Your task to perform on an android device: open app "PlayWell" (install if not already installed) and enter user name: "metric@gmail.com" and password: "bumblebee" Image 0: 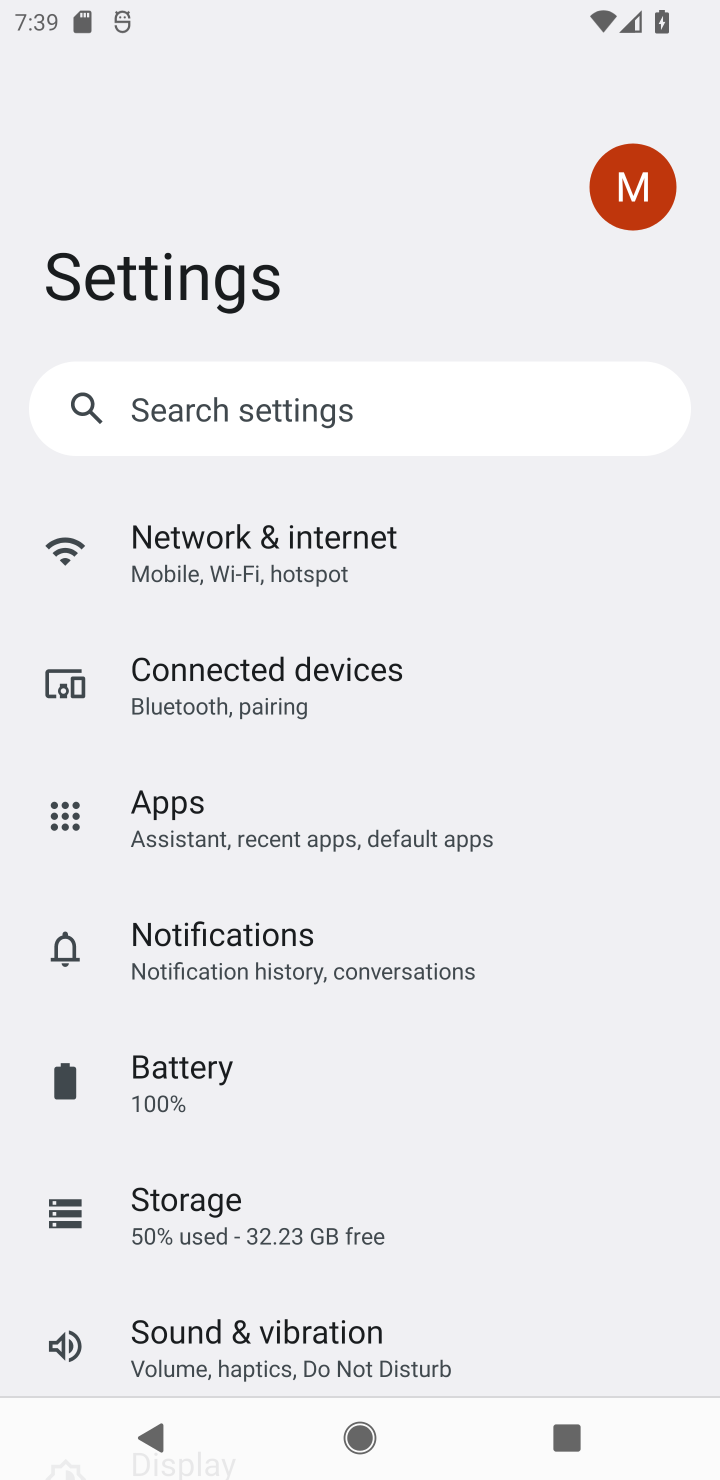
Step 0: press home button
Your task to perform on an android device: open app "PlayWell" (install if not already installed) and enter user name: "metric@gmail.com" and password: "bumblebee" Image 1: 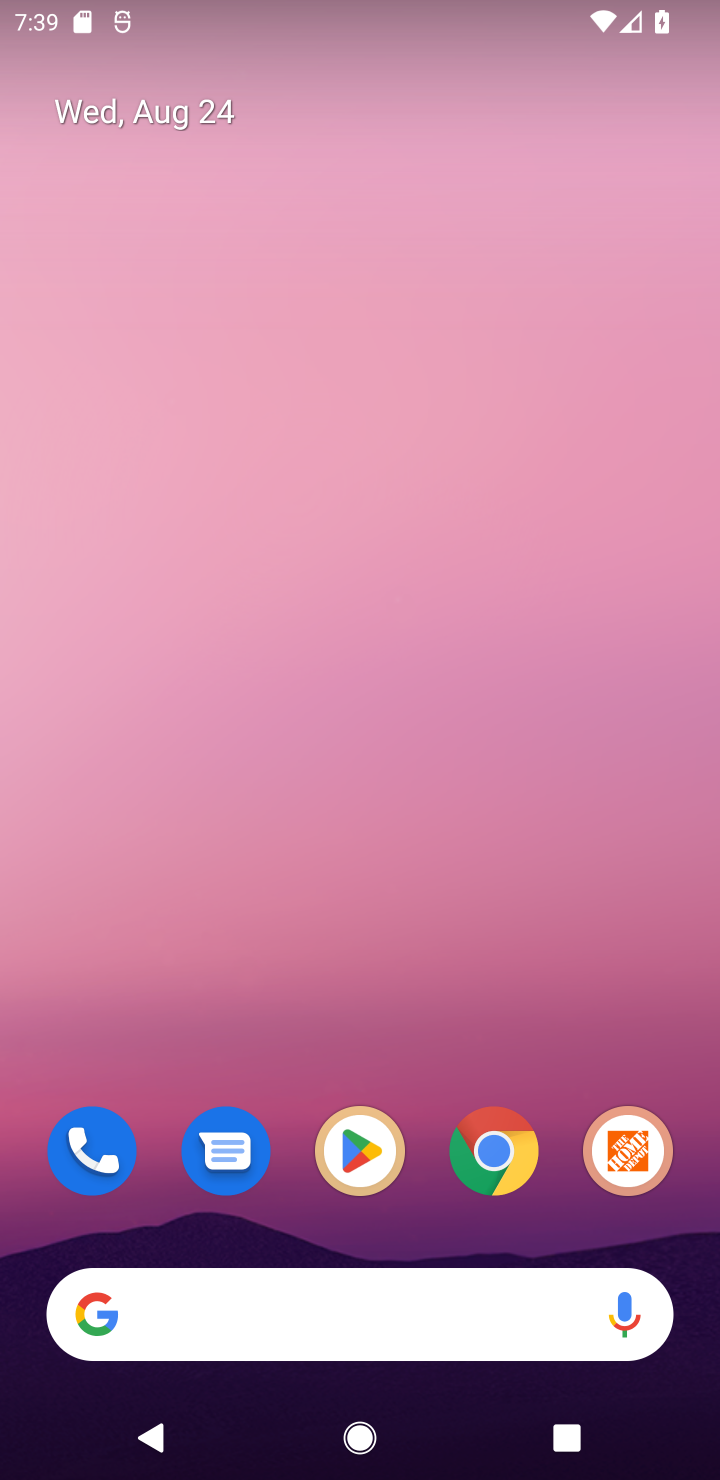
Step 1: click (365, 1144)
Your task to perform on an android device: open app "PlayWell" (install if not already installed) and enter user name: "metric@gmail.com" and password: "bumblebee" Image 2: 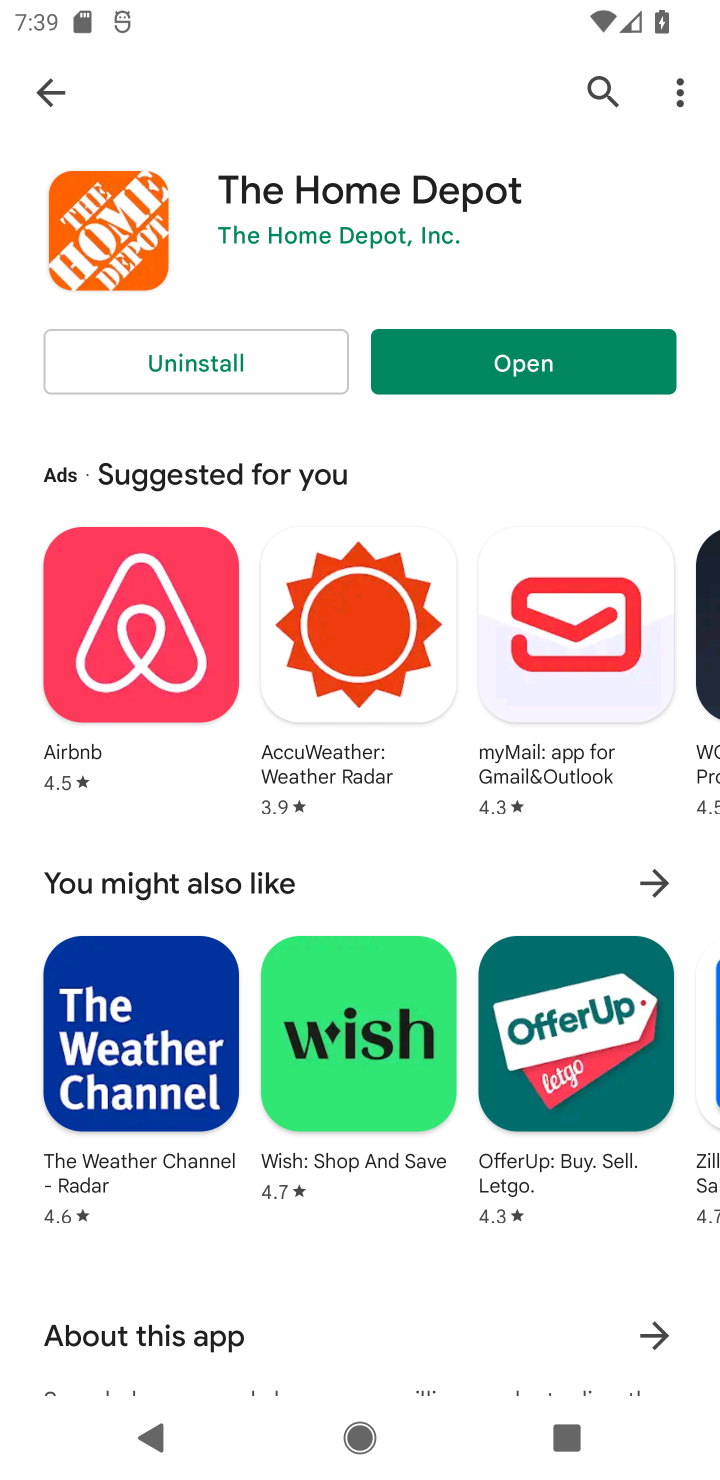
Step 2: click (588, 91)
Your task to perform on an android device: open app "PlayWell" (install if not already installed) and enter user name: "metric@gmail.com" and password: "bumblebee" Image 3: 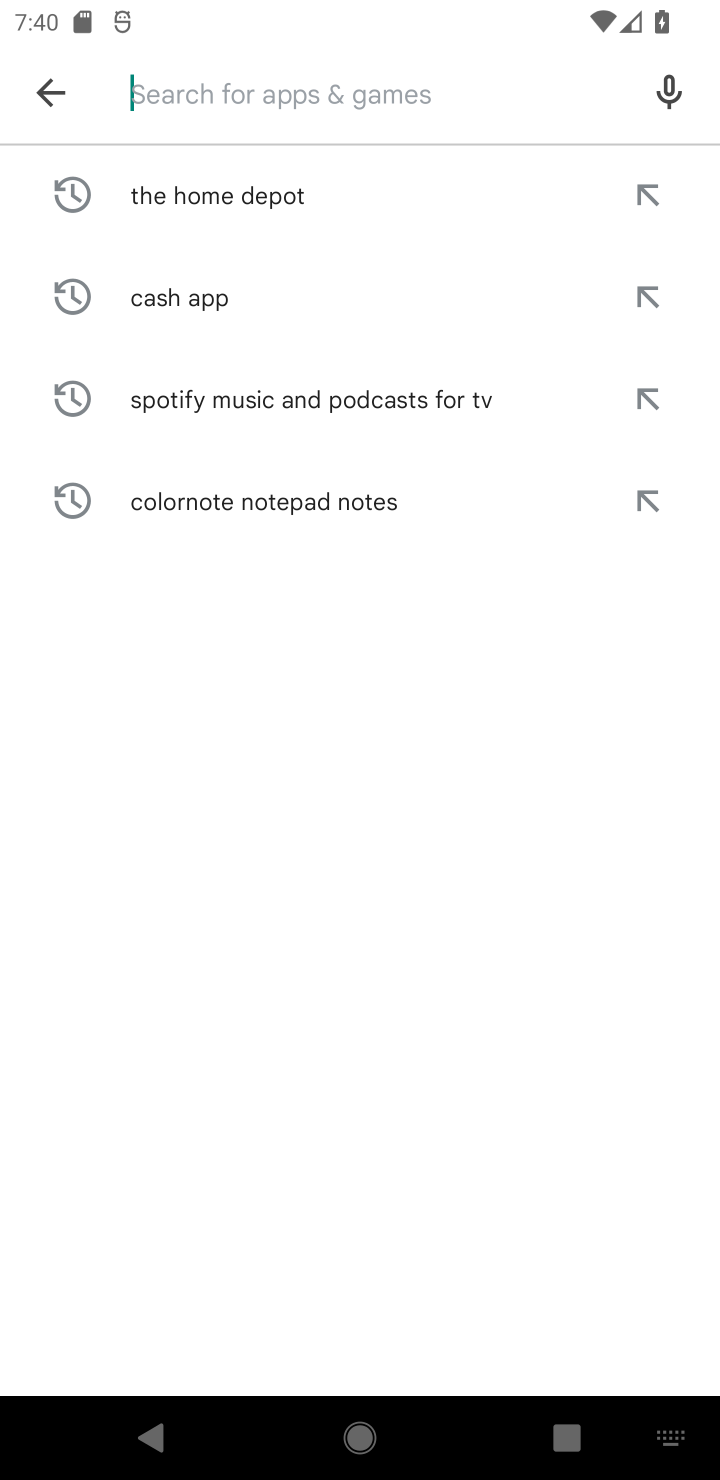
Step 3: type "PlayWel"
Your task to perform on an android device: open app "PlayWell" (install if not already installed) and enter user name: "metric@gmail.com" and password: "bumblebee" Image 4: 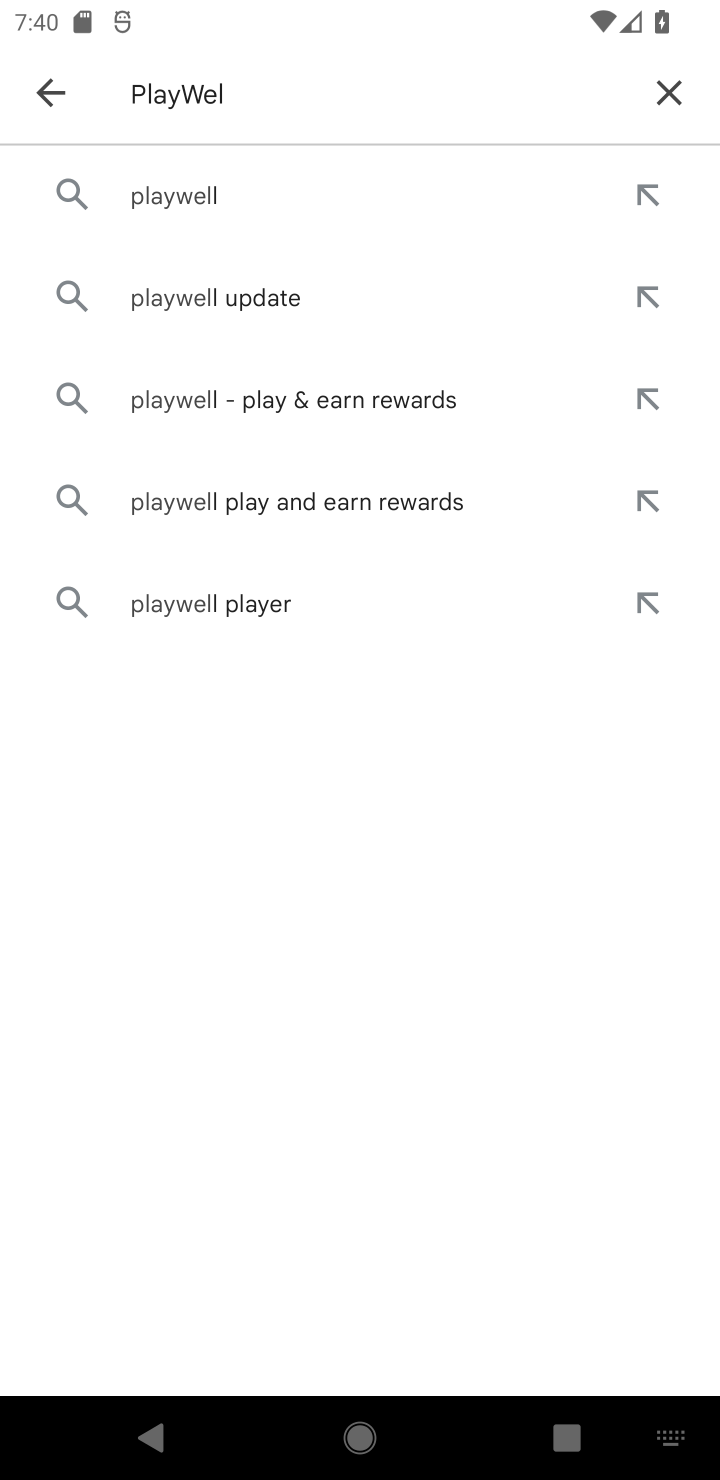
Step 4: click (198, 198)
Your task to perform on an android device: open app "PlayWell" (install if not already installed) and enter user name: "metric@gmail.com" and password: "bumblebee" Image 5: 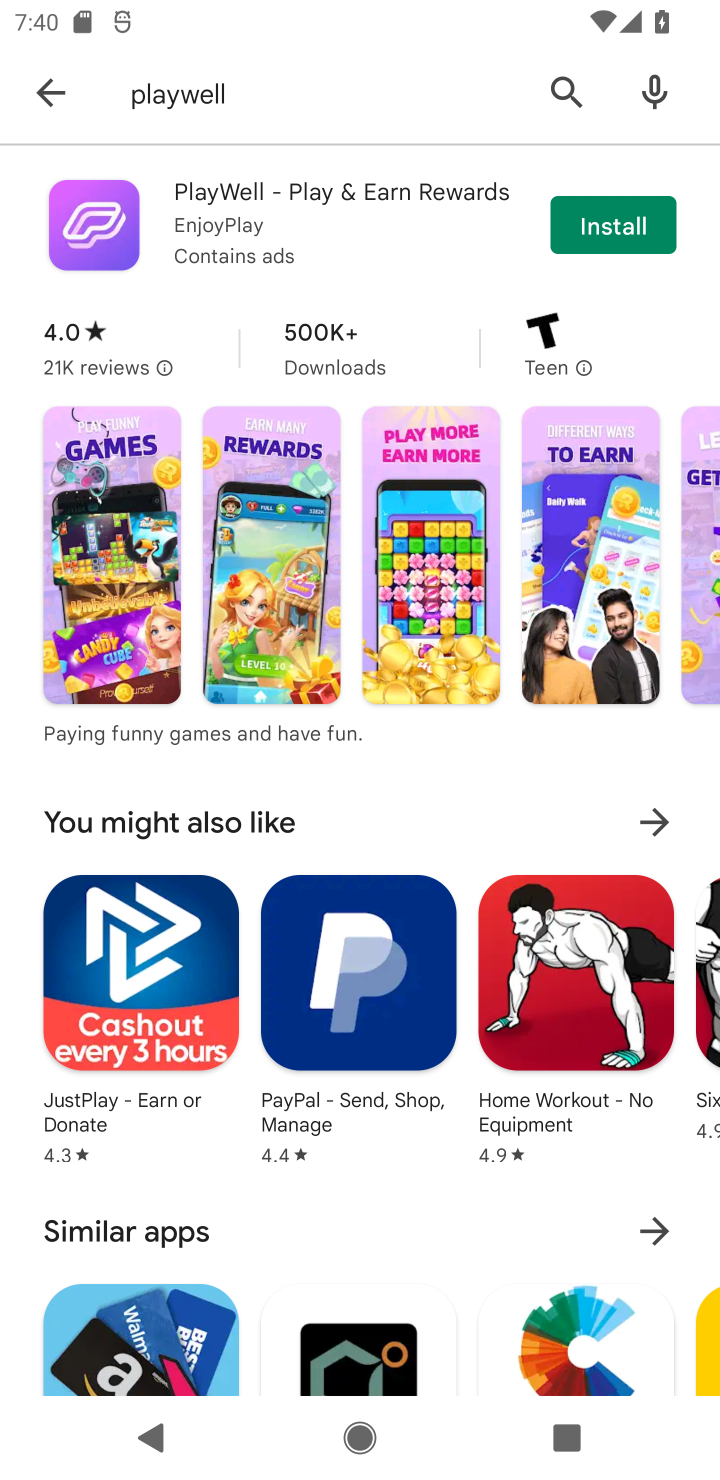
Step 5: click (234, 183)
Your task to perform on an android device: open app "PlayWell" (install if not already installed) and enter user name: "metric@gmail.com" and password: "bumblebee" Image 6: 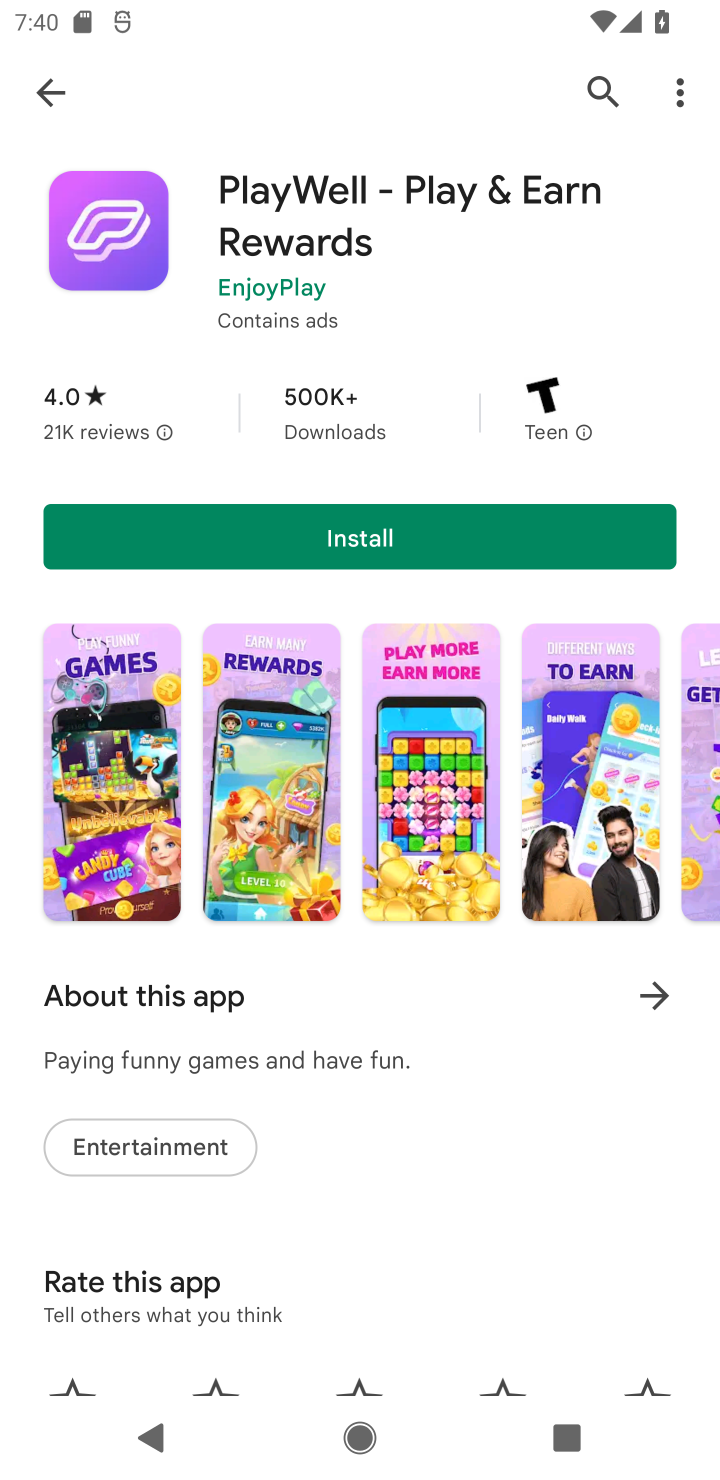
Step 6: click (354, 529)
Your task to perform on an android device: open app "PlayWell" (install if not already installed) and enter user name: "metric@gmail.com" and password: "bumblebee" Image 7: 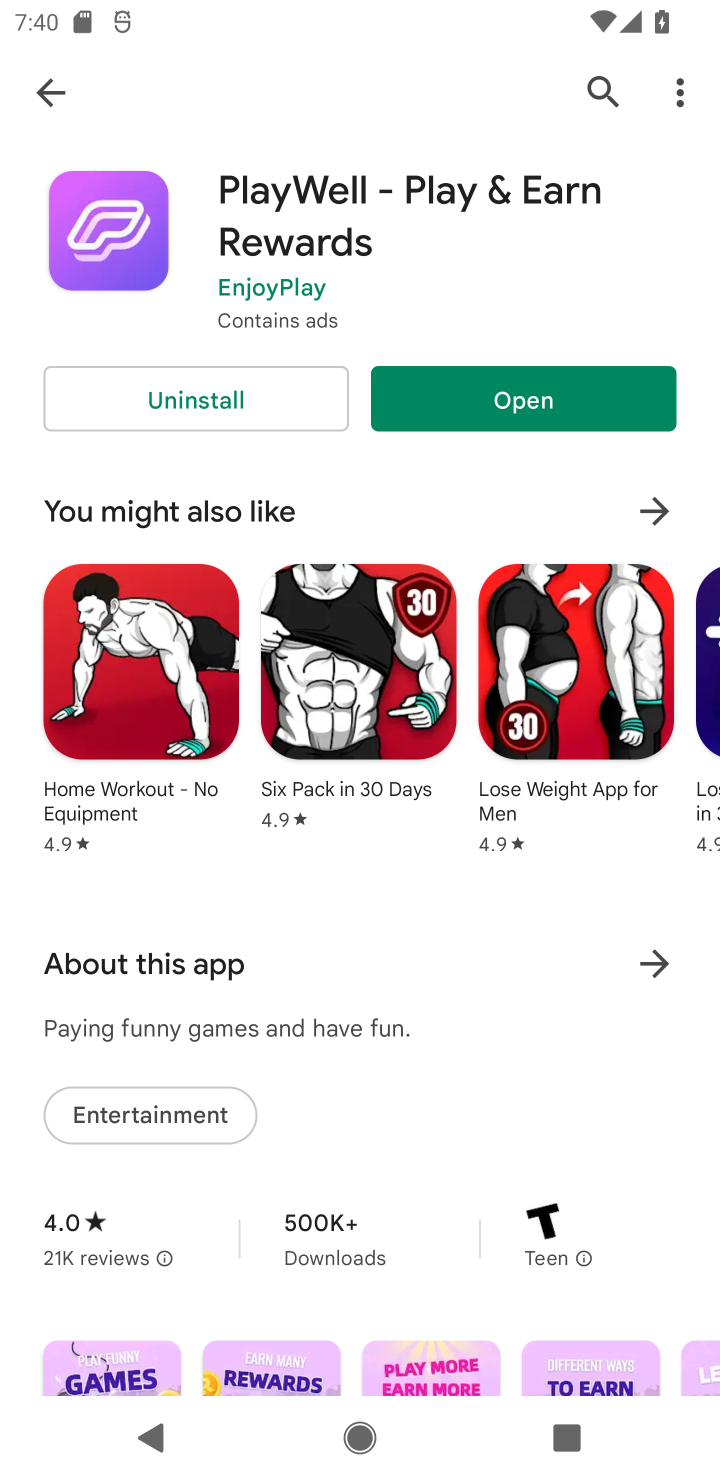
Step 7: click (522, 393)
Your task to perform on an android device: open app "PlayWell" (install if not already installed) and enter user name: "metric@gmail.com" and password: "bumblebee" Image 8: 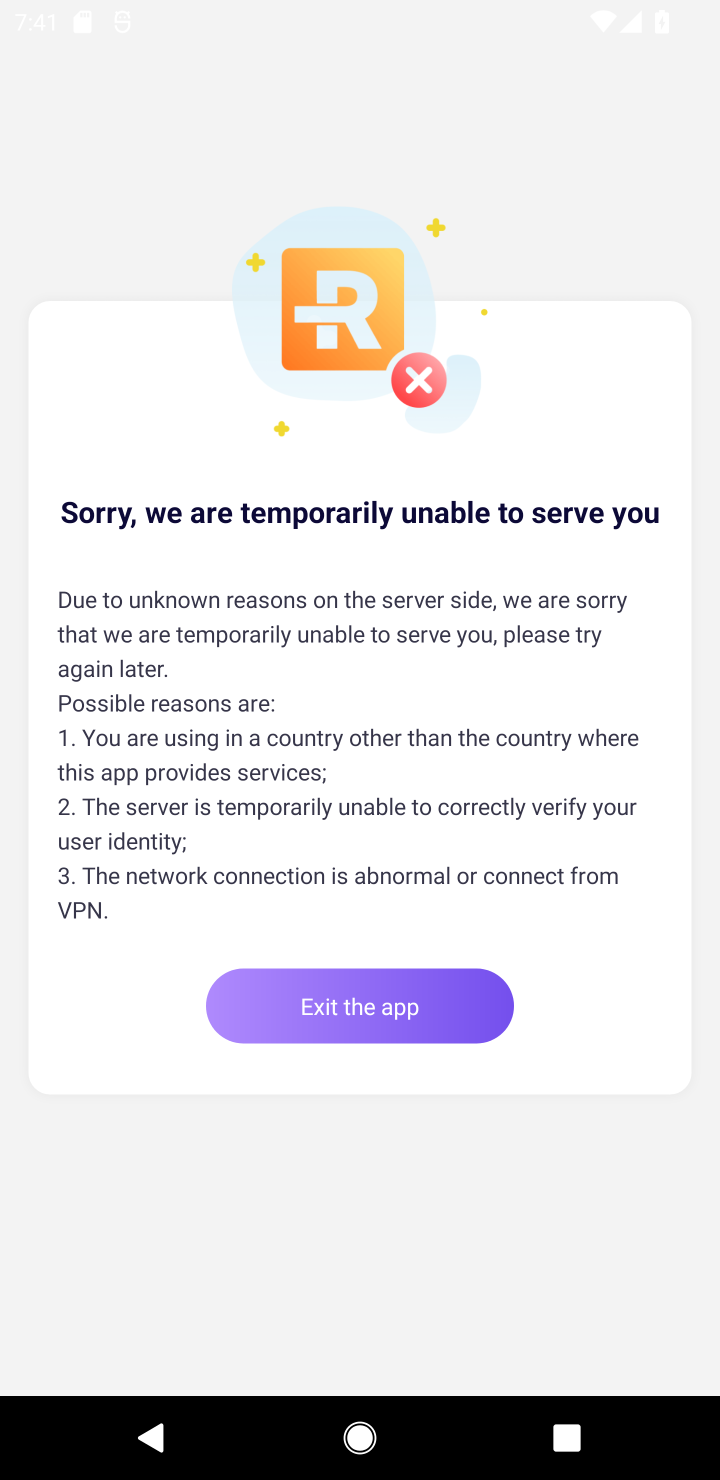
Step 8: task complete